Your task to perform on an android device: Search for vegetarian restaurants on Maps Image 0: 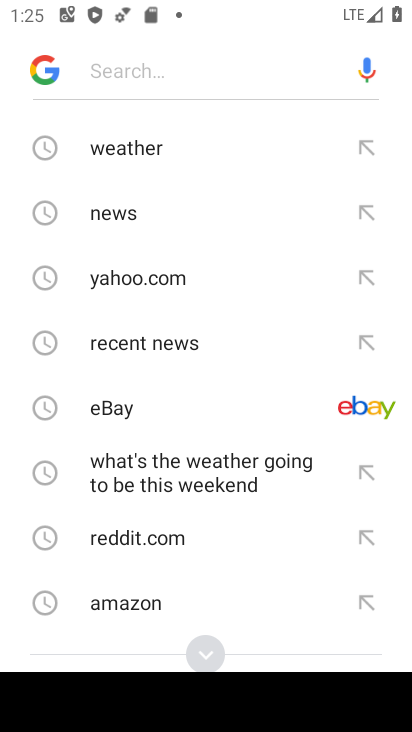
Step 0: press home button
Your task to perform on an android device: Search for vegetarian restaurants on Maps Image 1: 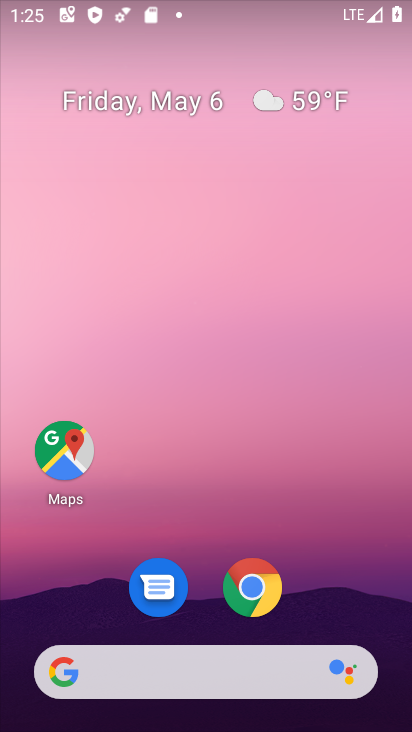
Step 1: click (43, 467)
Your task to perform on an android device: Search for vegetarian restaurants on Maps Image 2: 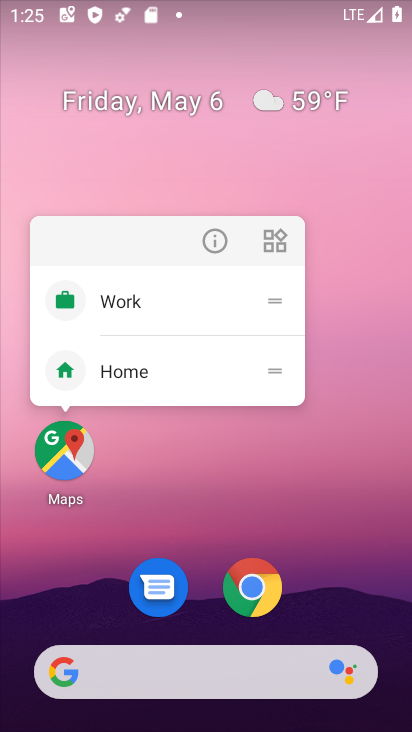
Step 2: click (70, 461)
Your task to perform on an android device: Search for vegetarian restaurants on Maps Image 3: 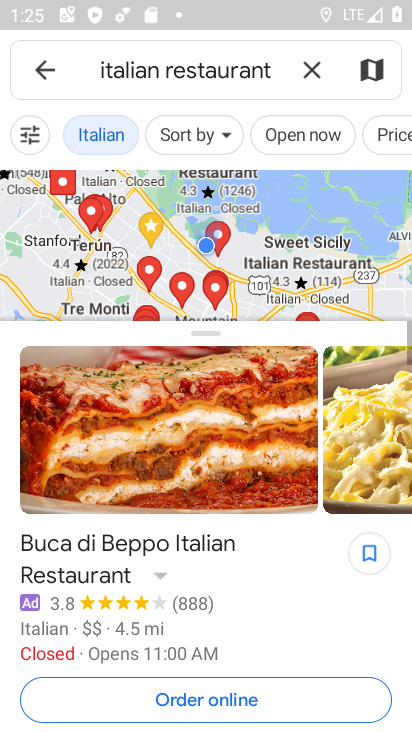
Step 3: click (309, 71)
Your task to perform on an android device: Search for vegetarian restaurants on Maps Image 4: 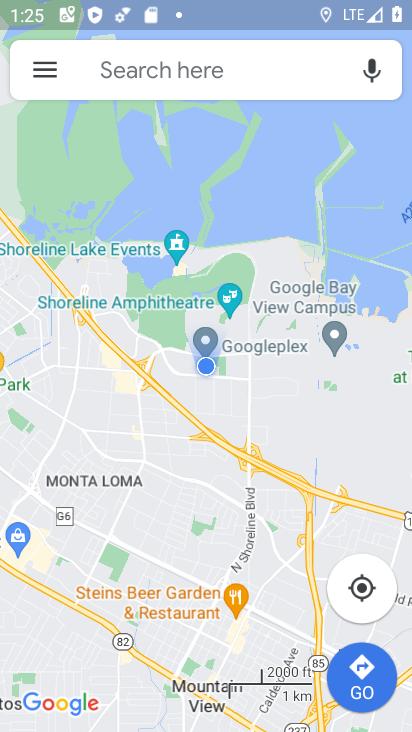
Step 4: click (162, 74)
Your task to perform on an android device: Search for vegetarian restaurants on Maps Image 5: 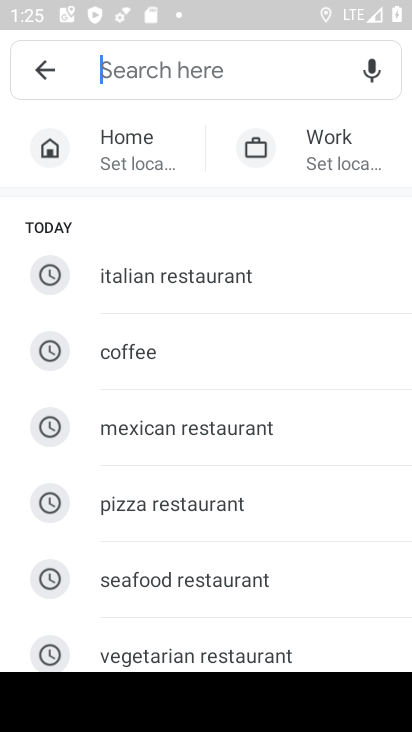
Step 5: click (224, 653)
Your task to perform on an android device: Search for vegetarian restaurants on Maps Image 6: 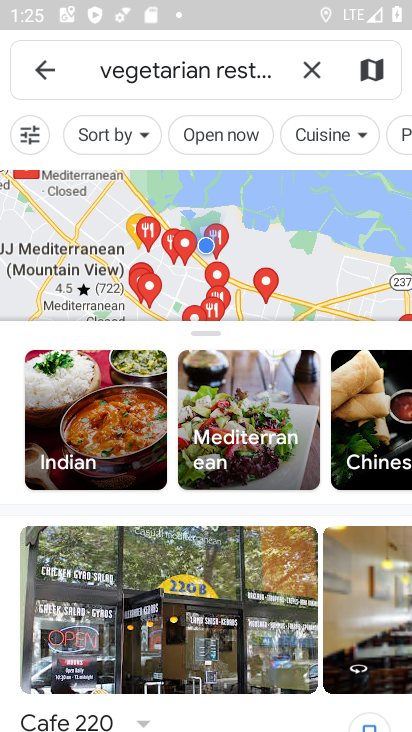
Step 6: task complete